Your task to perform on an android device: Go to ESPN.com Image 0: 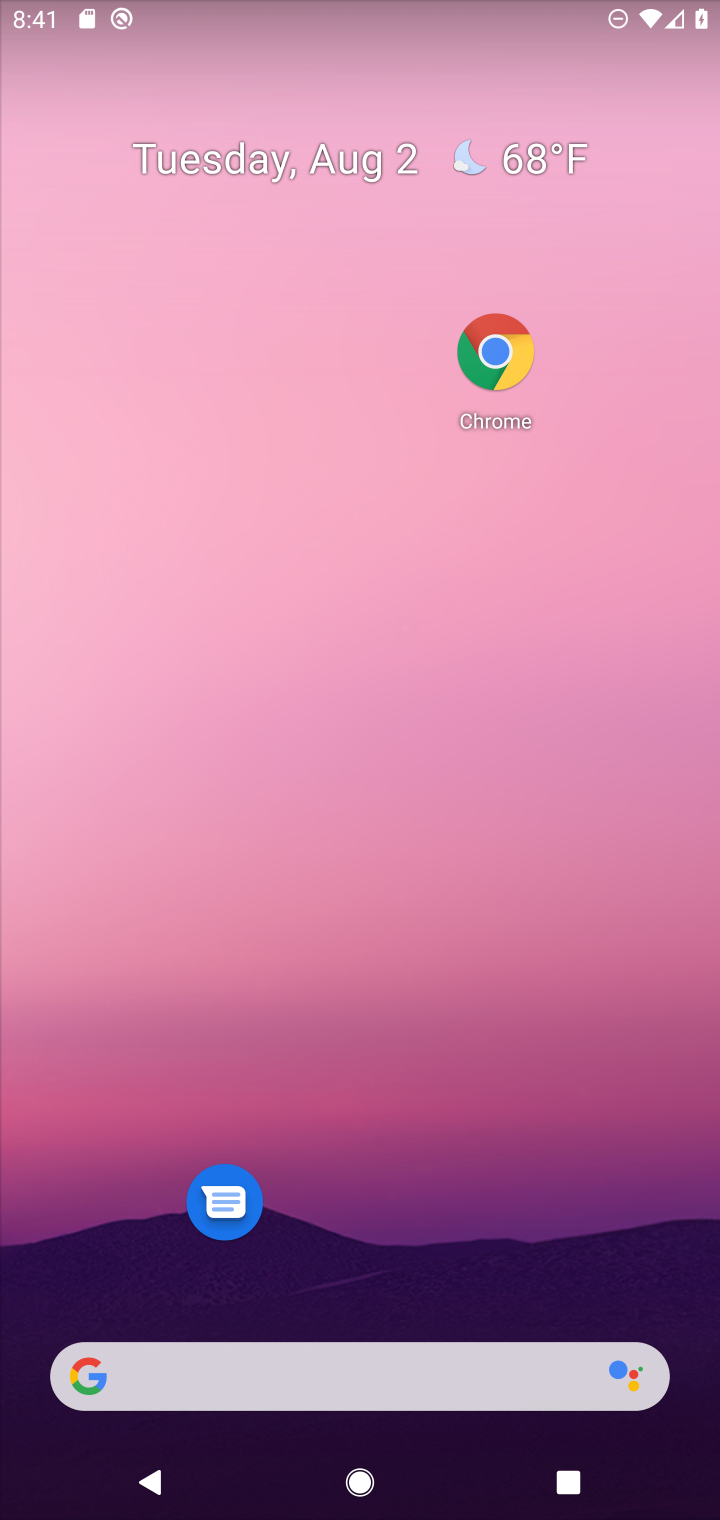
Step 0: click (484, 356)
Your task to perform on an android device: Go to ESPN.com Image 1: 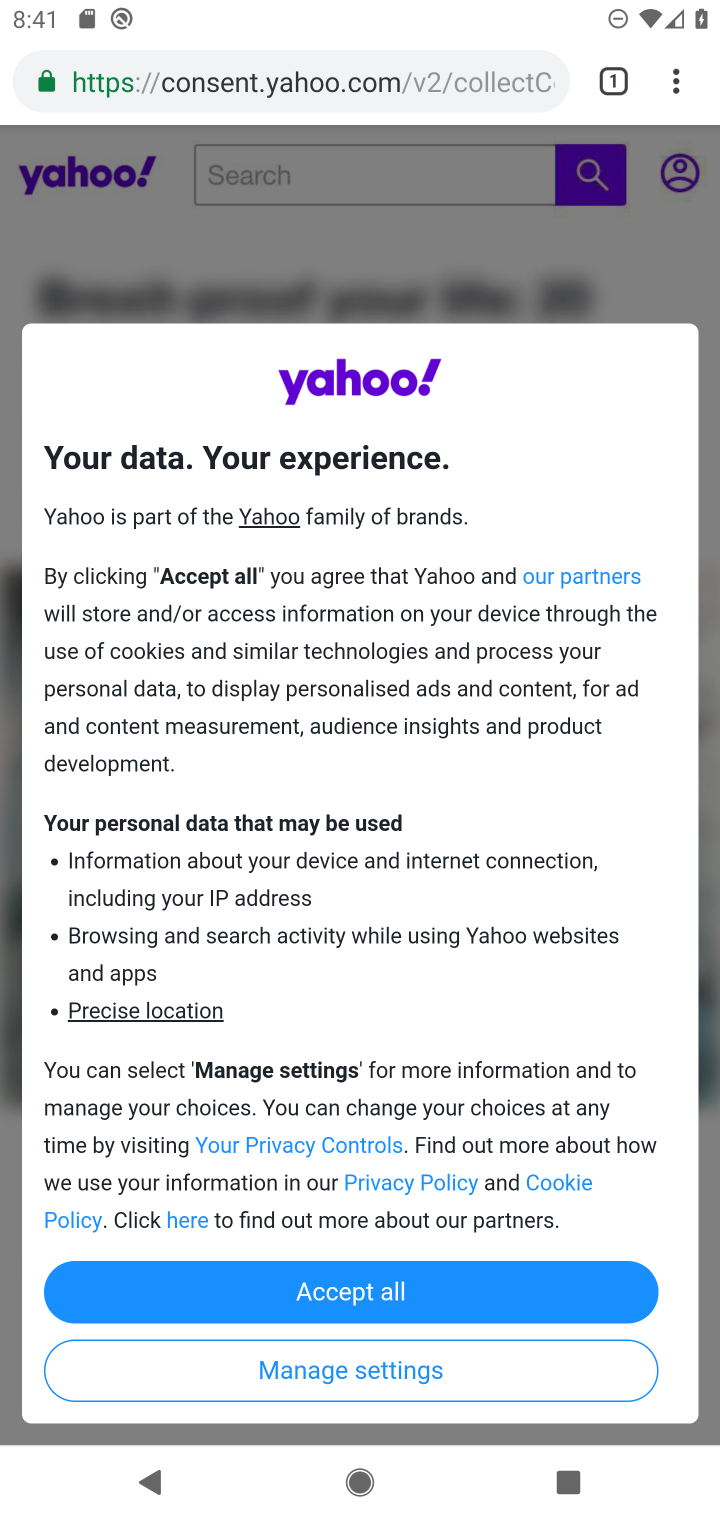
Step 1: click (374, 64)
Your task to perform on an android device: Go to ESPN.com Image 2: 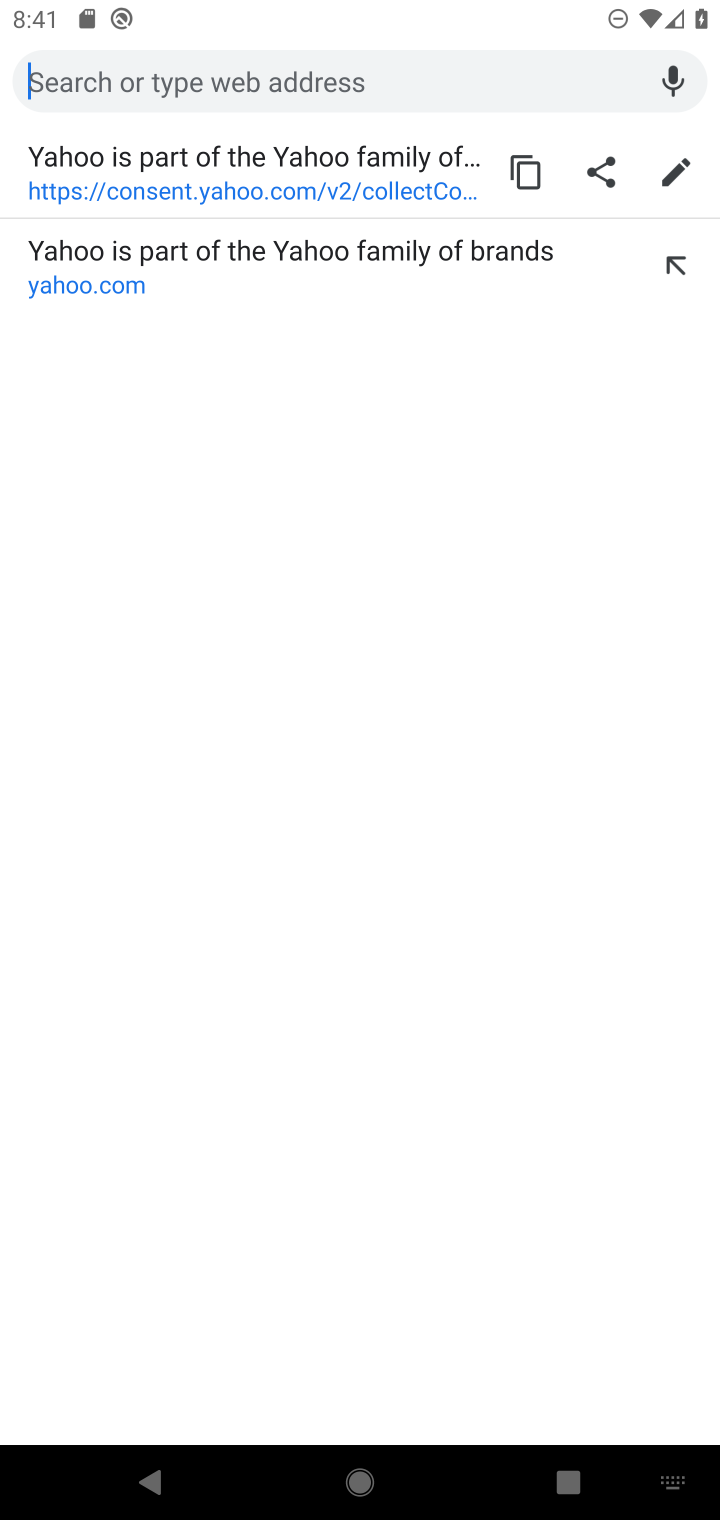
Step 2: type "espn.com"
Your task to perform on an android device: Go to ESPN.com Image 3: 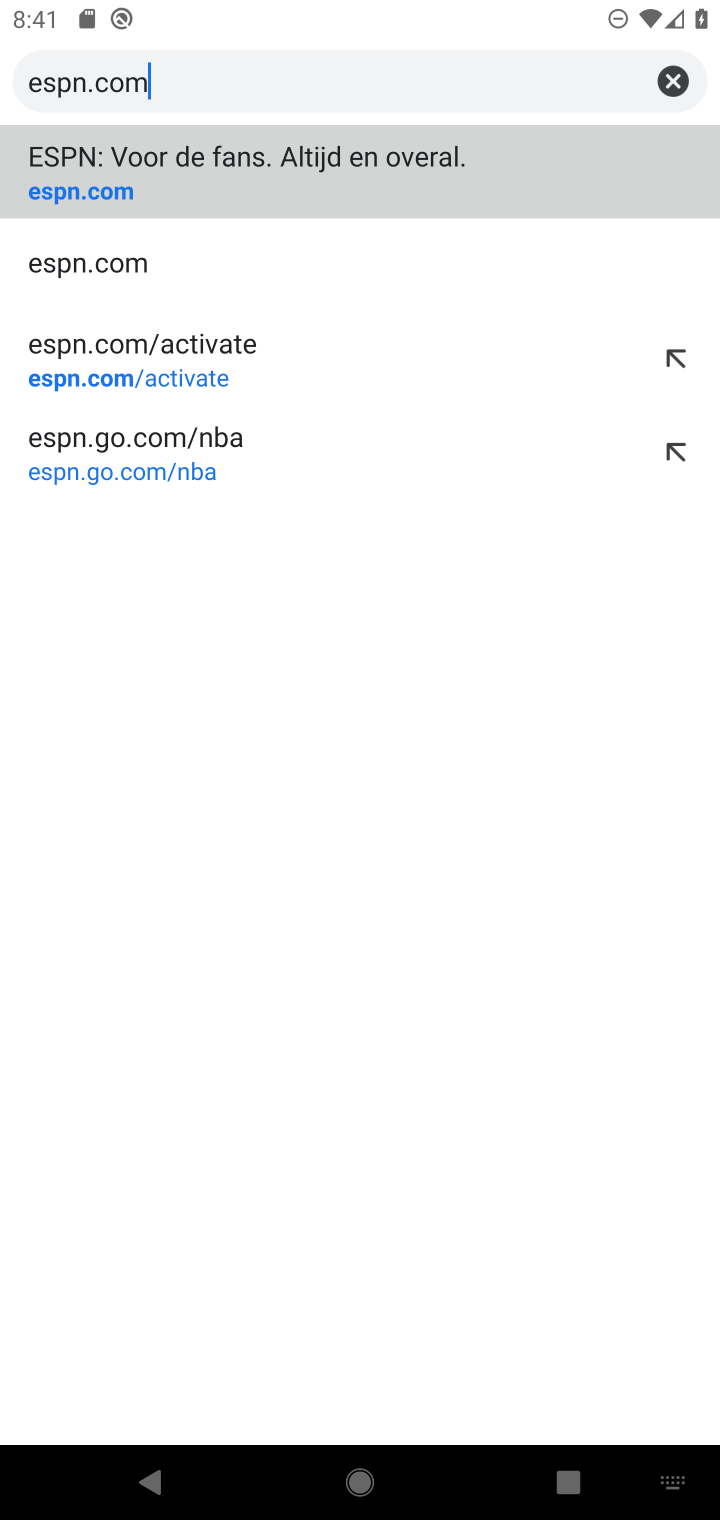
Step 3: click (92, 190)
Your task to perform on an android device: Go to ESPN.com Image 4: 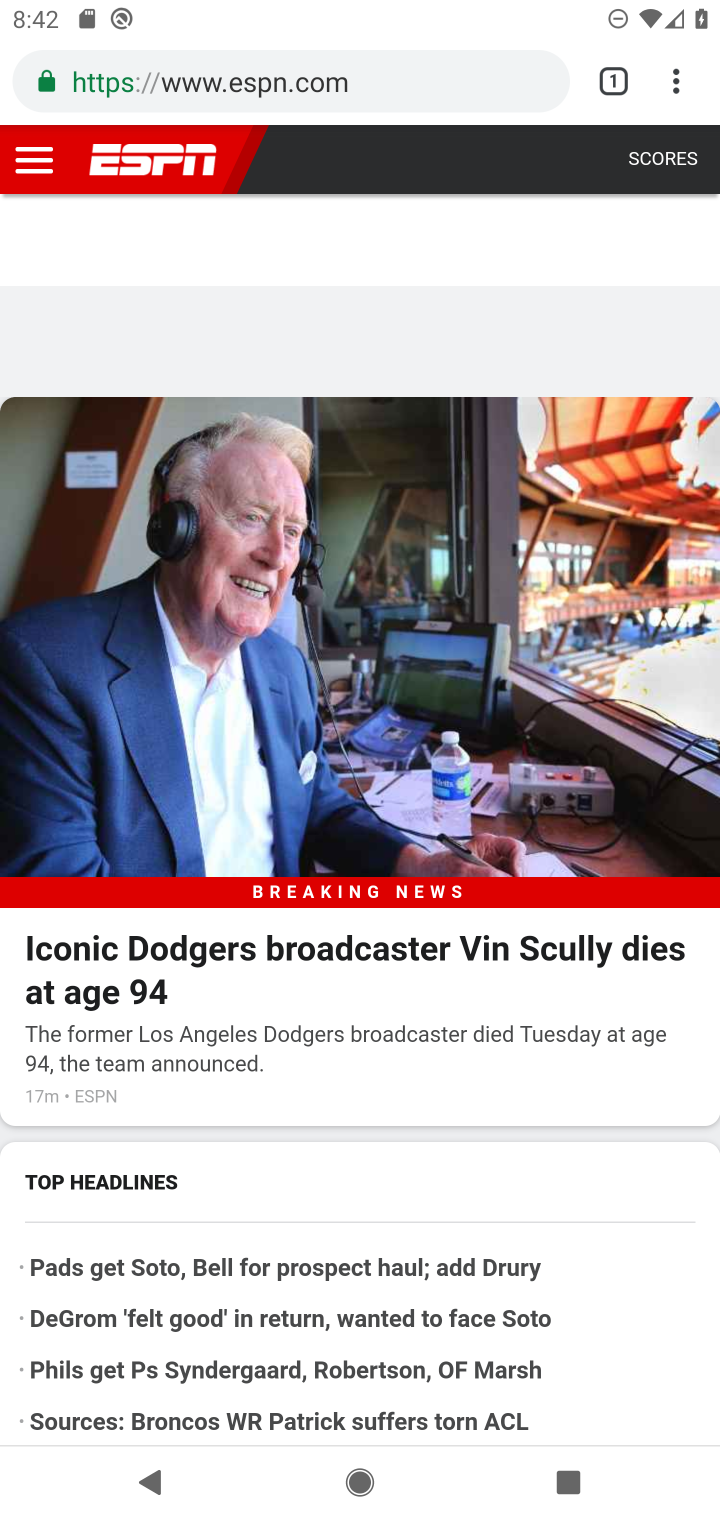
Step 4: task complete